Your task to perform on an android device: turn off improve location accuracy Image 0: 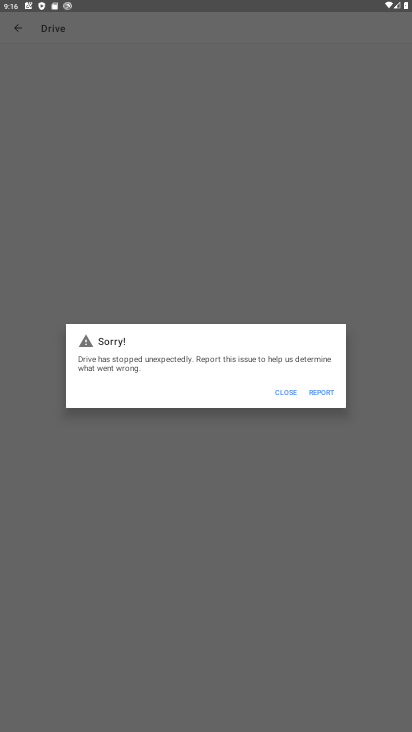
Step 0: press home button
Your task to perform on an android device: turn off improve location accuracy Image 1: 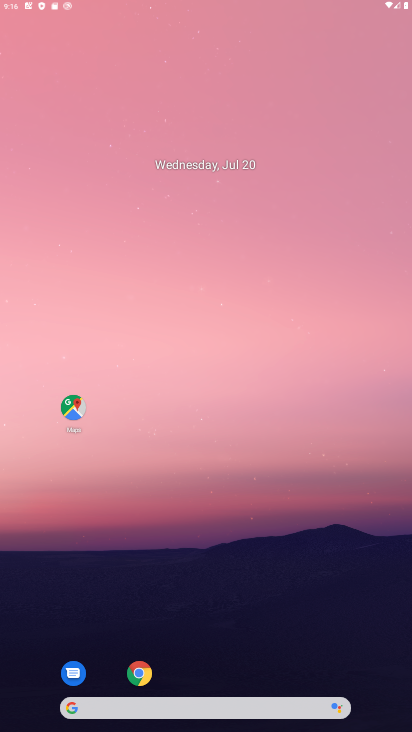
Step 1: drag from (226, 567) to (252, 331)
Your task to perform on an android device: turn off improve location accuracy Image 2: 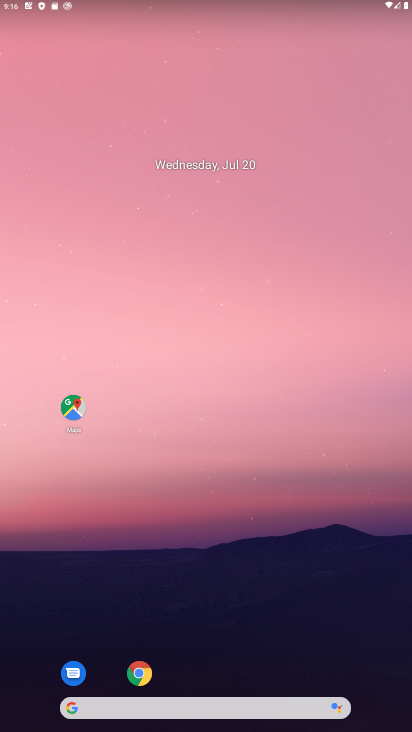
Step 2: drag from (241, 500) to (301, 257)
Your task to perform on an android device: turn off improve location accuracy Image 3: 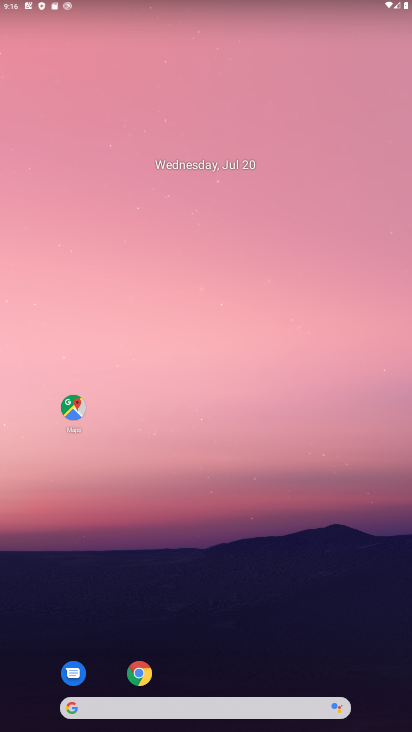
Step 3: drag from (200, 649) to (274, 196)
Your task to perform on an android device: turn off improve location accuracy Image 4: 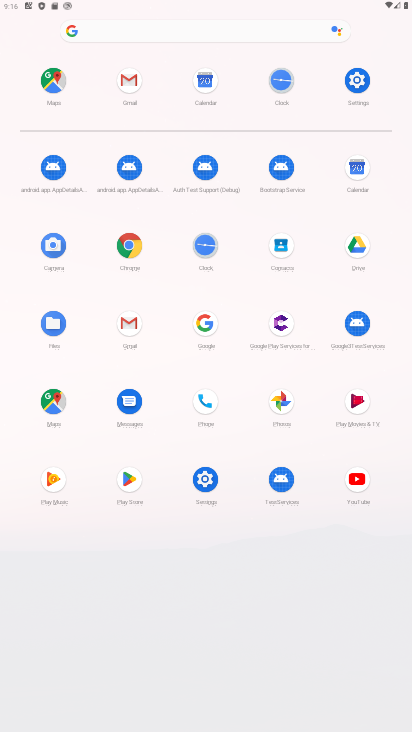
Step 4: click (197, 482)
Your task to perform on an android device: turn off improve location accuracy Image 5: 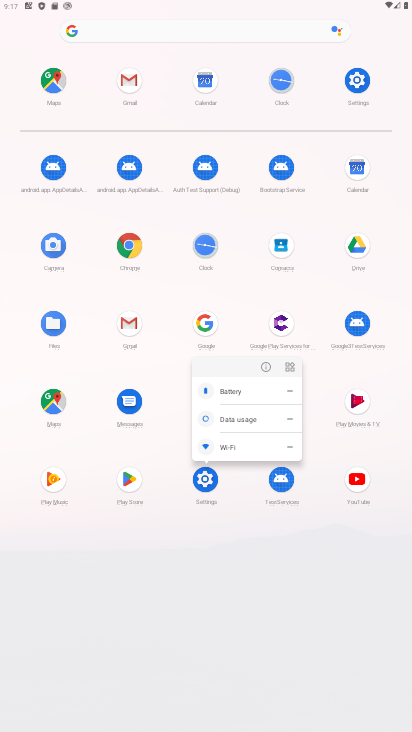
Step 5: click (257, 369)
Your task to perform on an android device: turn off improve location accuracy Image 6: 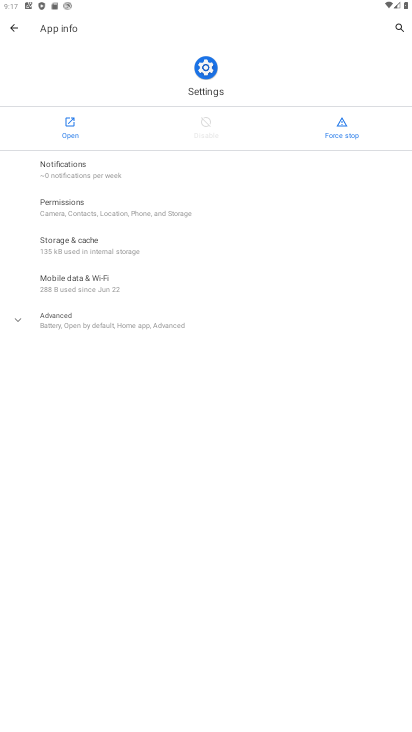
Step 6: click (74, 135)
Your task to perform on an android device: turn off improve location accuracy Image 7: 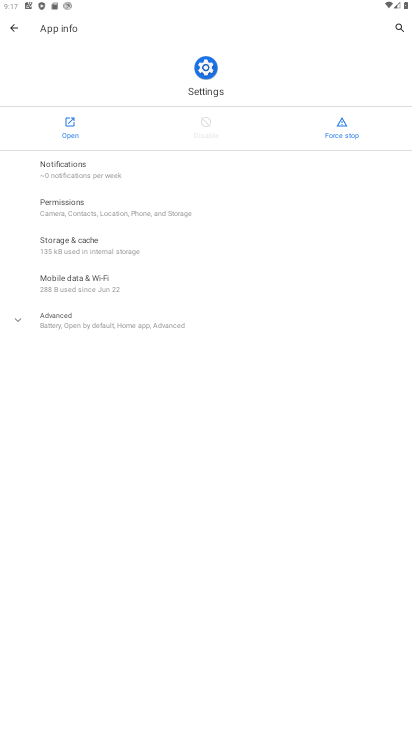
Step 7: click (65, 135)
Your task to perform on an android device: turn off improve location accuracy Image 8: 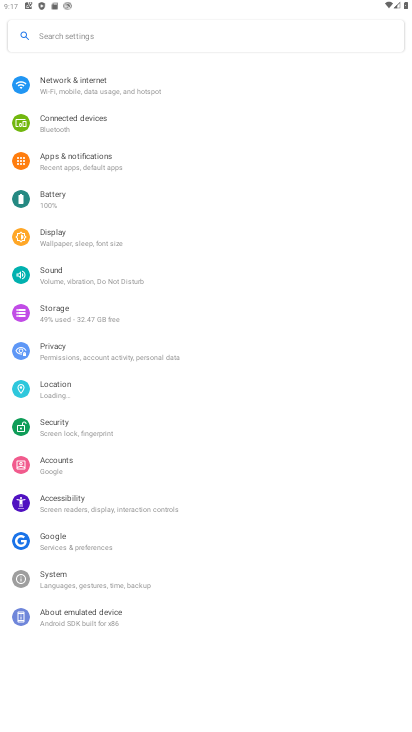
Step 8: click (65, 129)
Your task to perform on an android device: turn off improve location accuracy Image 9: 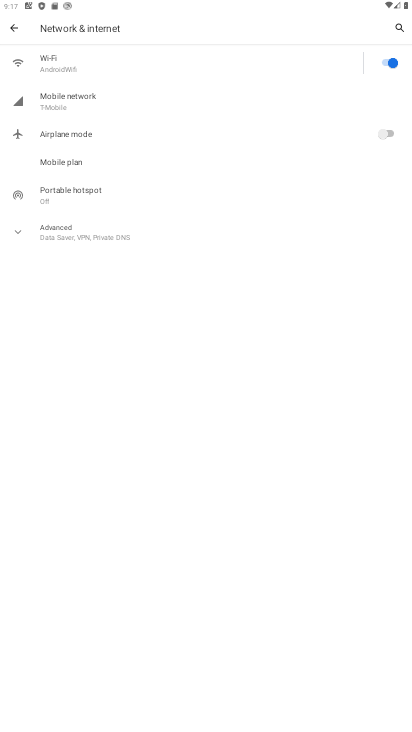
Step 9: click (13, 25)
Your task to perform on an android device: turn off improve location accuracy Image 10: 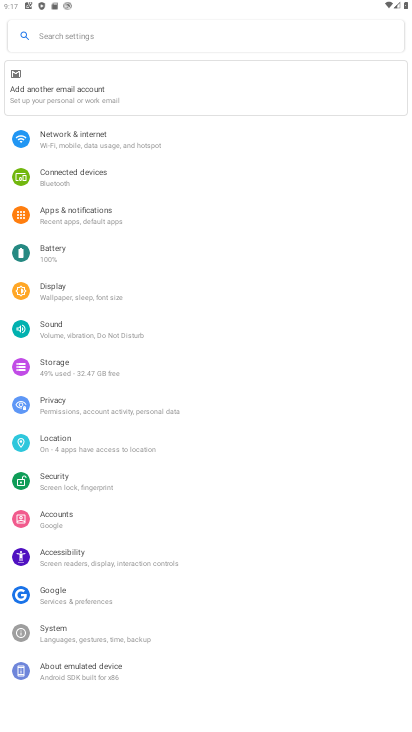
Step 10: click (80, 448)
Your task to perform on an android device: turn off improve location accuracy Image 11: 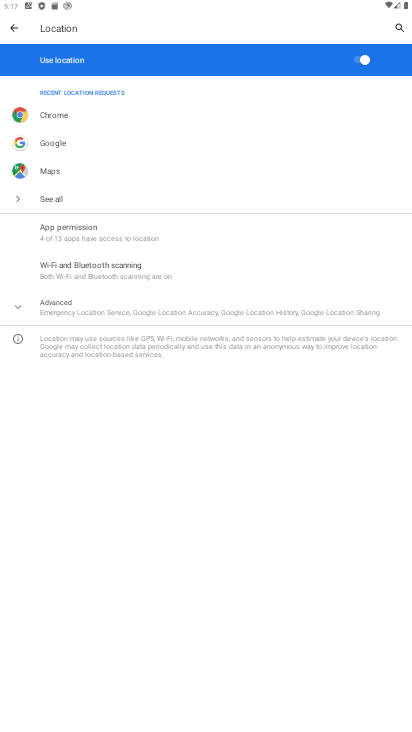
Step 11: click (102, 312)
Your task to perform on an android device: turn off improve location accuracy Image 12: 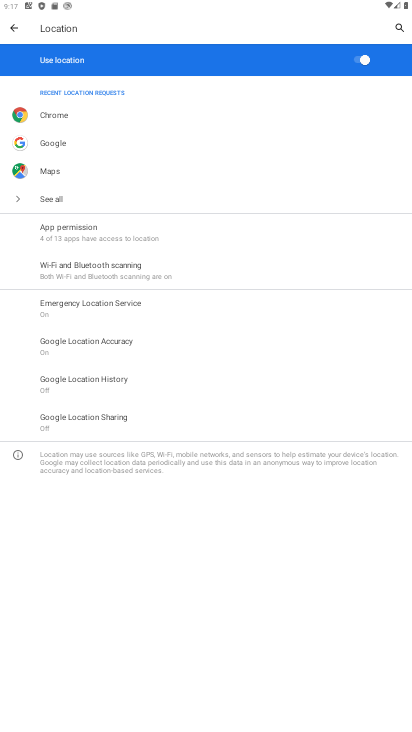
Step 12: click (115, 344)
Your task to perform on an android device: turn off improve location accuracy Image 13: 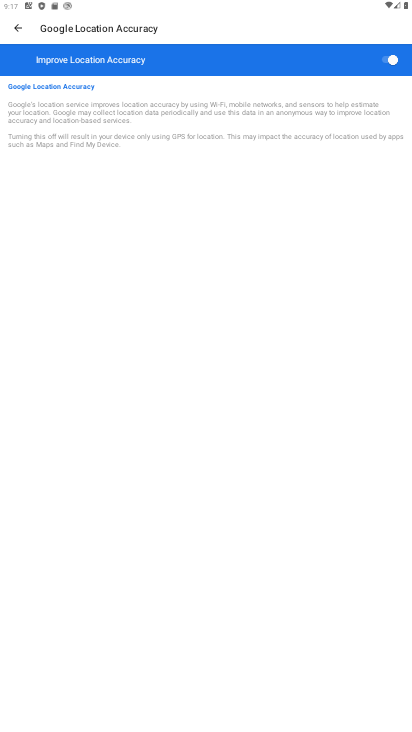
Step 13: click (388, 59)
Your task to perform on an android device: turn off improve location accuracy Image 14: 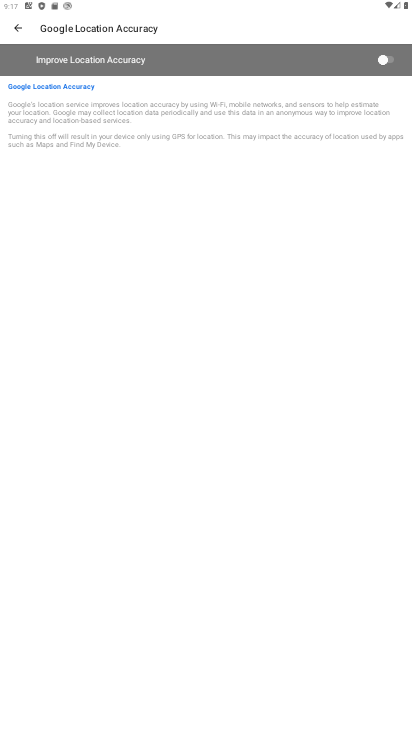
Step 14: task complete